Your task to perform on an android device: toggle javascript in the chrome app Image 0: 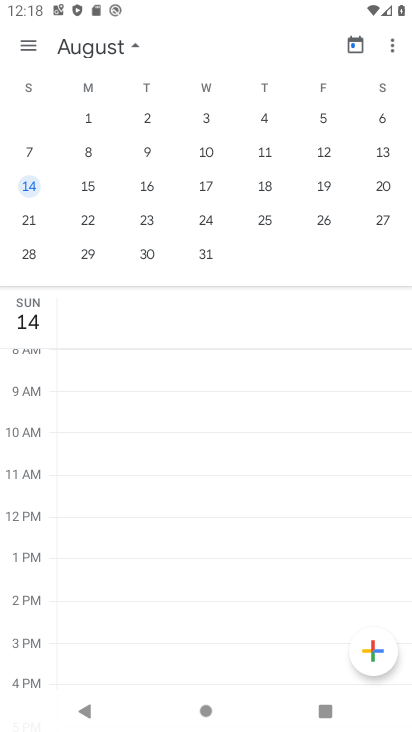
Step 0: press home button
Your task to perform on an android device: toggle javascript in the chrome app Image 1: 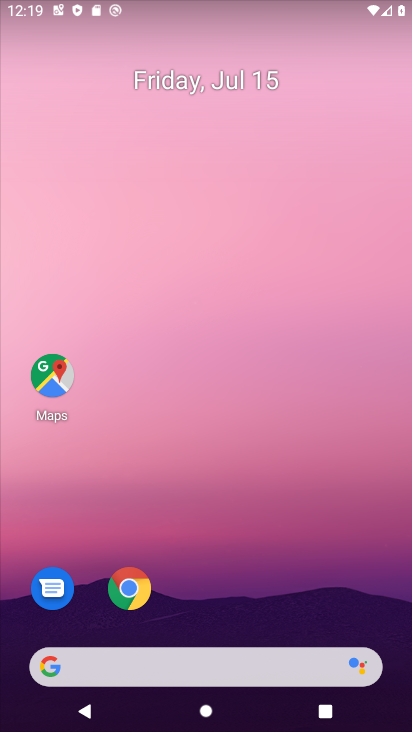
Step 1: click (129, 592)
Your task to perform on an android device: toggle javascript in the chrome app Image 2: 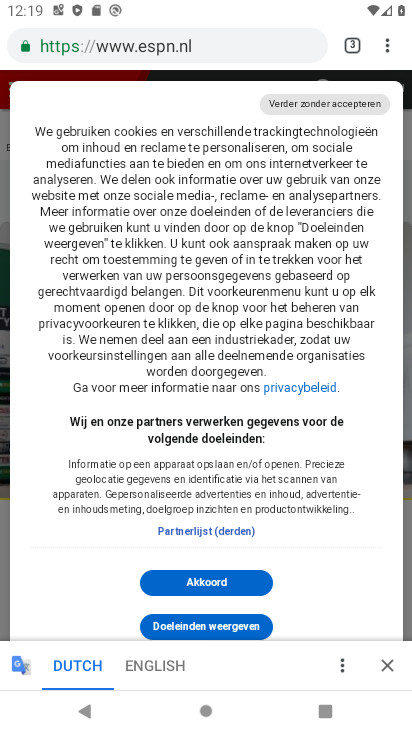
Step 2: click (387, 44)
Your task to perform on an android device: toggle javascript in the chrome app Image 3: 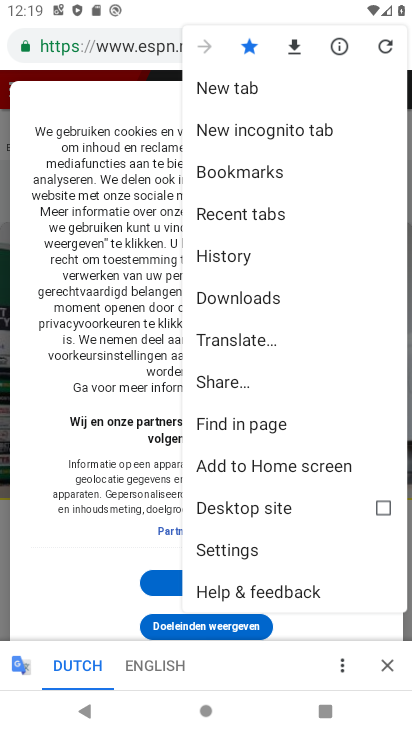
Step 3: click (259, 551)
Your task to perform on an android device: toggle javascript in the chrome app Image 4: 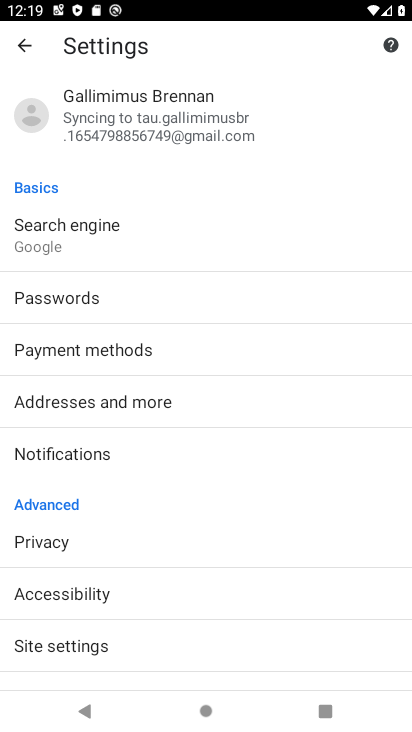
Step 4: click (105, 641)
Your task to perform on an android device: toggle javascript in the chrome app Image 5: 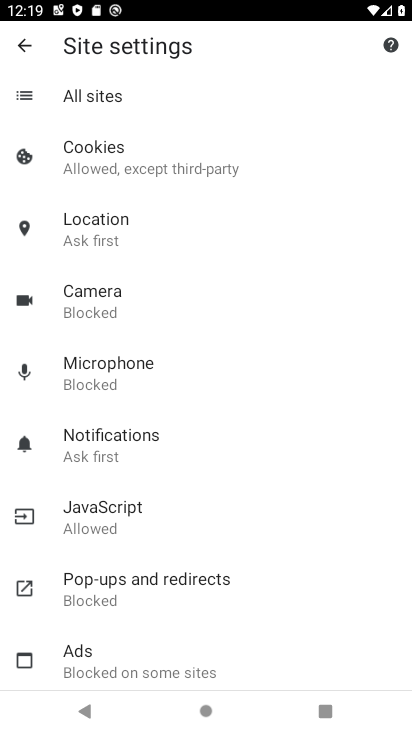
Step 5: click (137, 511)
Your task to perform on an android device: toggle javascript in the chrome app Image 6: 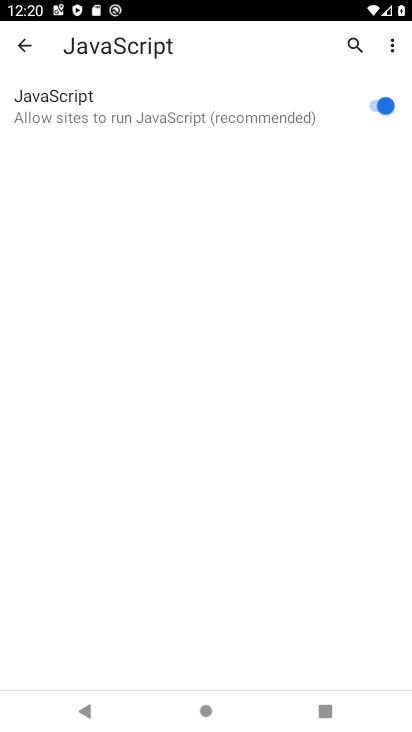
Step 6: click (385, 99)
Your task to perform on an android device: toggle javascript in the chrome app Image 7: 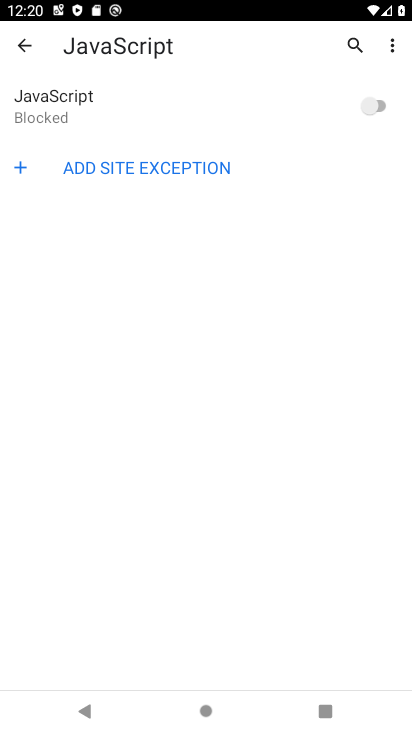
Step 7: task complete